Your task to perform on an android device: Open network settings Image 0: 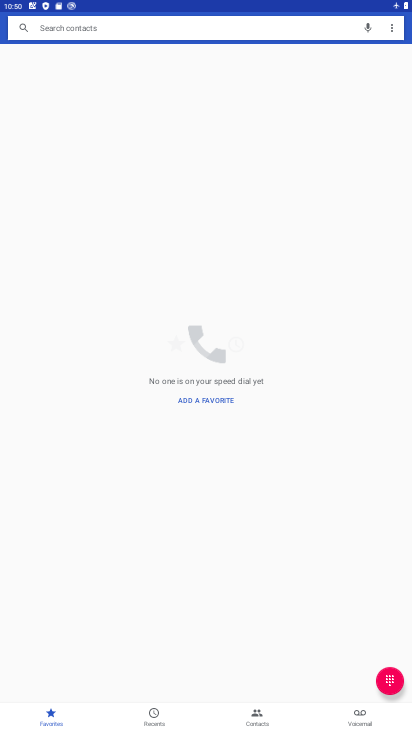
Step 0: press home button
Your task to perform on an android device: Open network settings Image 1: 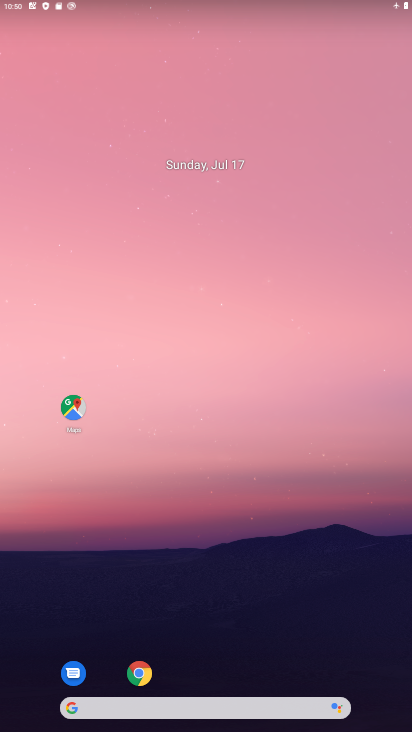
Step 1: drag from (216, 673) to (239, 181)
Your task to perform on an android device: Open network settings Image 2: 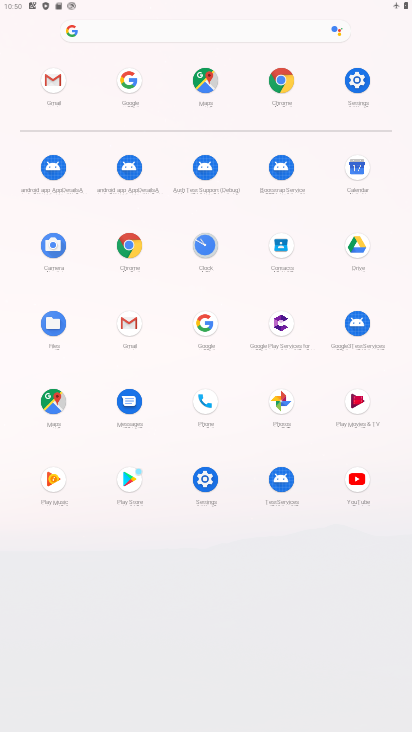
Step 2: click (358, 79)
Your task to perform on an android device: Open network settings Image 3: 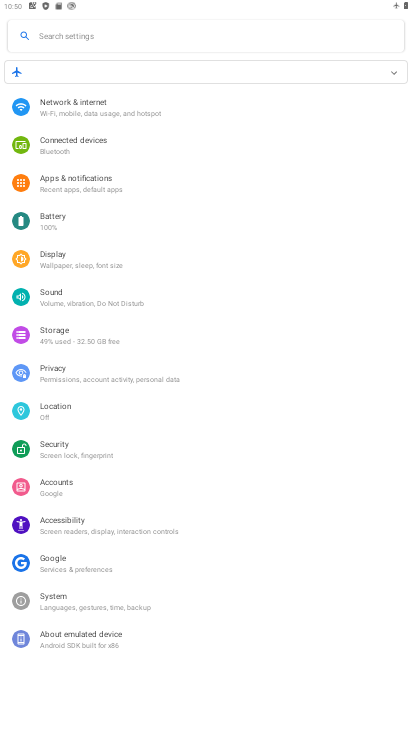
Step 3: click (148, 107)
Your task to perform on an android device: Open network settings Image 4: 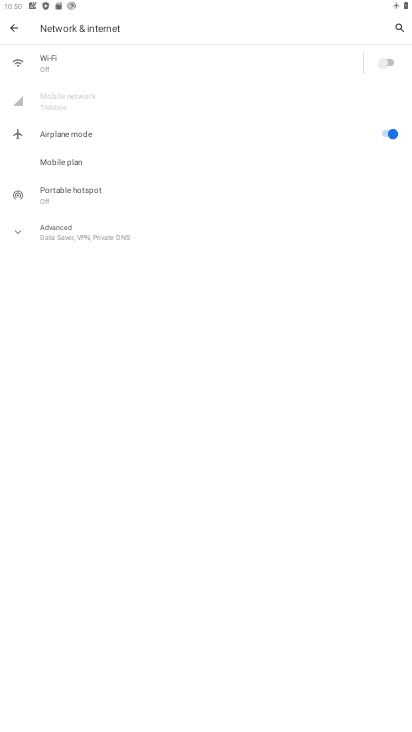
Step 4: click (395, 137)
Your task to perform on an android device: Open network settings Image 5: 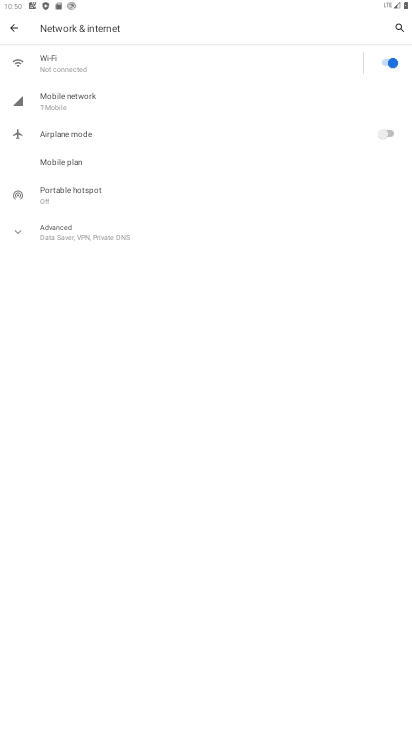
Step 5: click (112, 100)
Your task to perform on an android device: Open network settings Image 6: 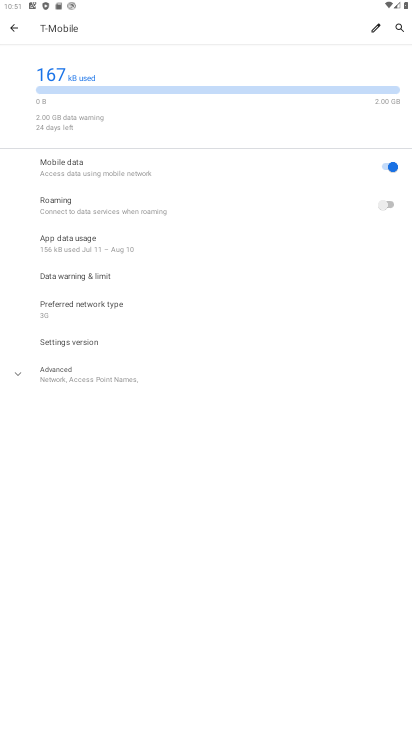
Step 6: task complete